Your task to perform on an android device: set the timer Image 0: 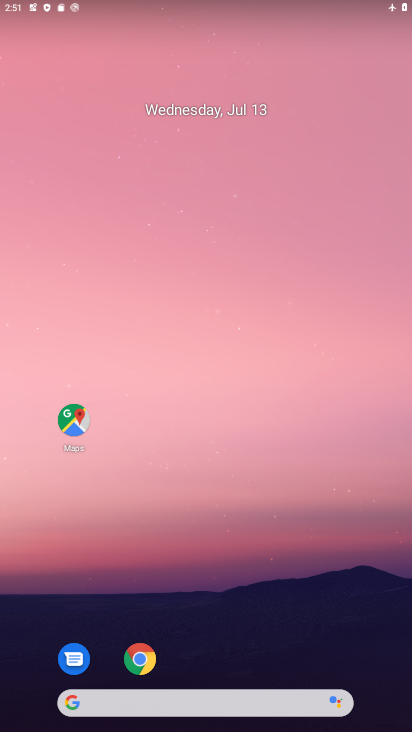
Step 0: drag from (375, 649) to (345, 37)
Your task to perform on an android device: set the timer Image 1: 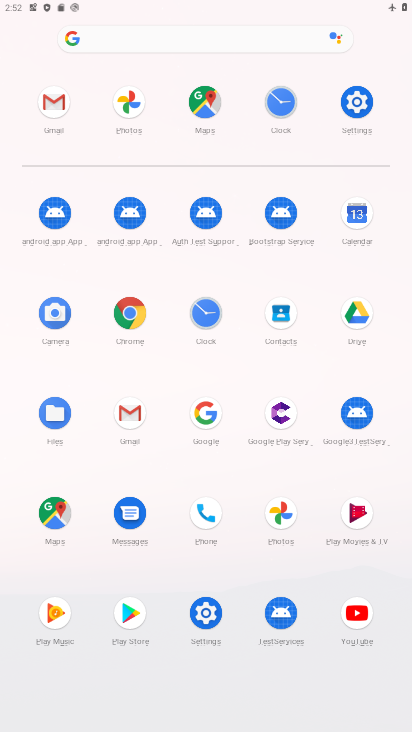
Step 1: click (206, 314)
Your task to perform on an android device: set the timer Image 2: 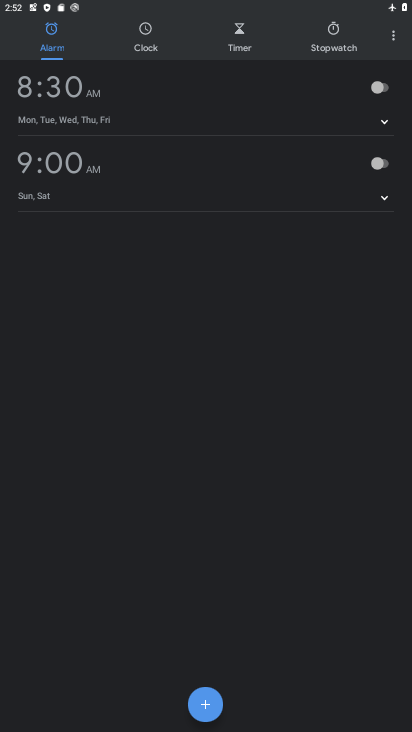
Step 2: click (241, 39)
Your task to perform on an android device: set the timer Image 3: 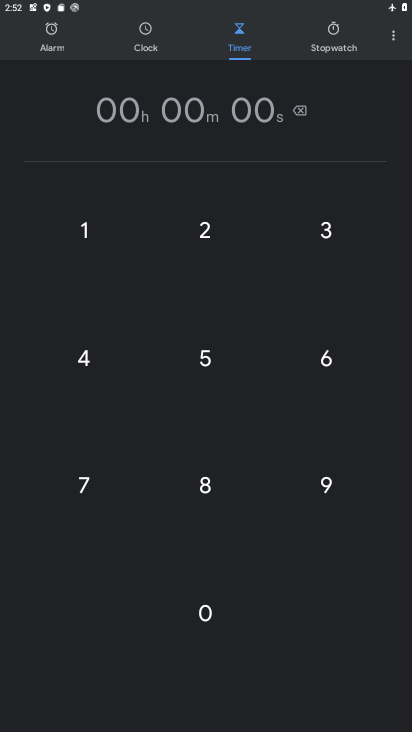
Step 3: click (81, 233)
Your task to perform on an android device: set the timer Image 4: 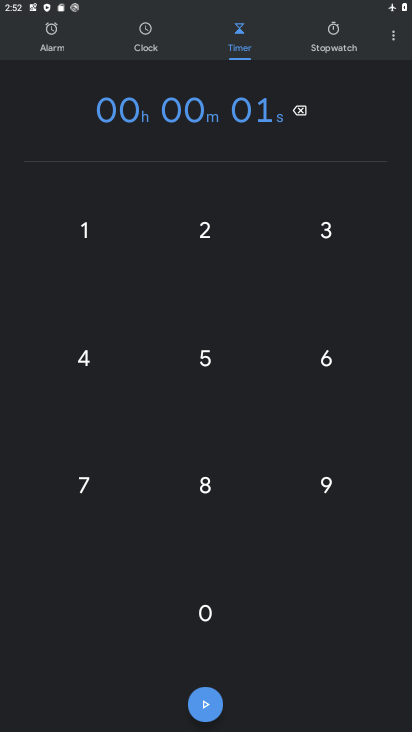
Step 4: click (331, 232)
Your task to perform on an android device: set the timer Image 5: 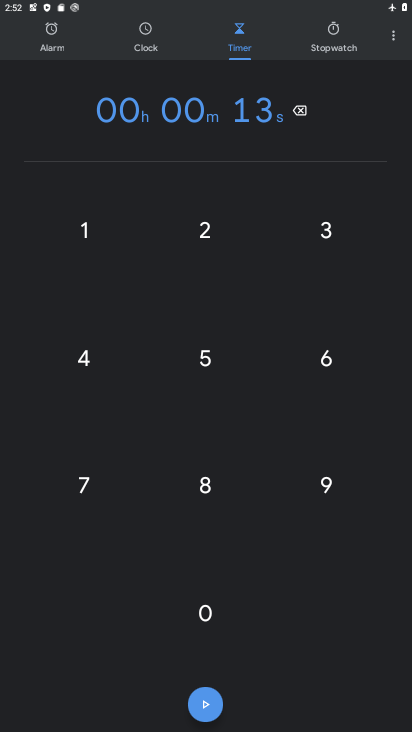
Step 5: click (206, 620)
Your task to perform on an android device: set the timer Image 6: 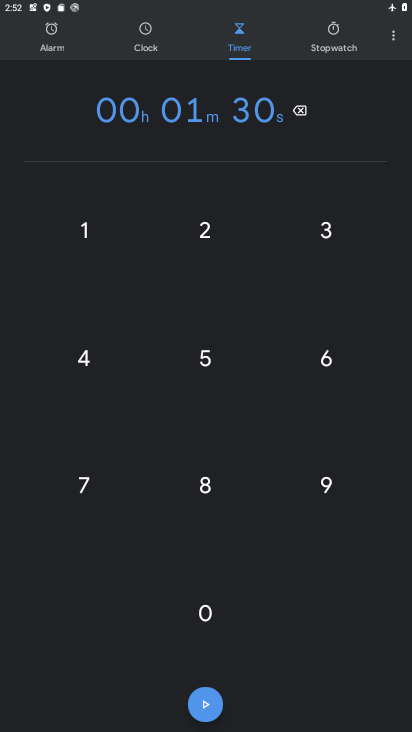
Step 6: click (206, 620)
Your task to perform on an android device: set the timer Image 7: 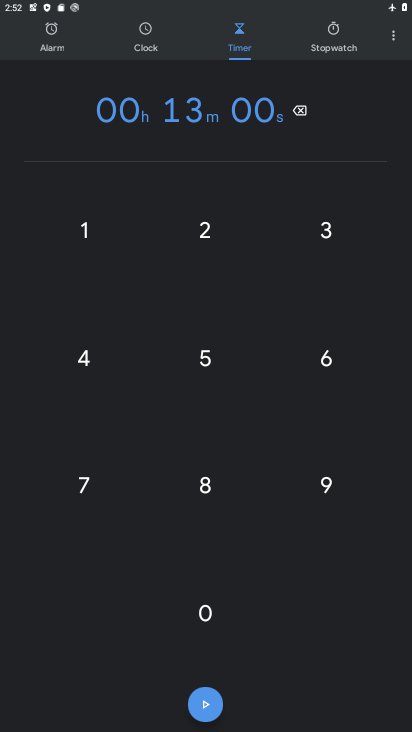
Step 7: click (206, 620)
Your task to perform on an android device: set the timer Image 8: 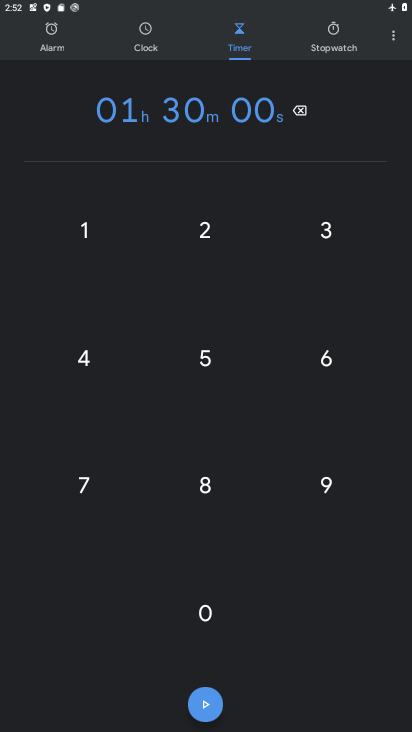
Step 8: task complete